Your task to perform on an android device: What's the weather? Image 0: 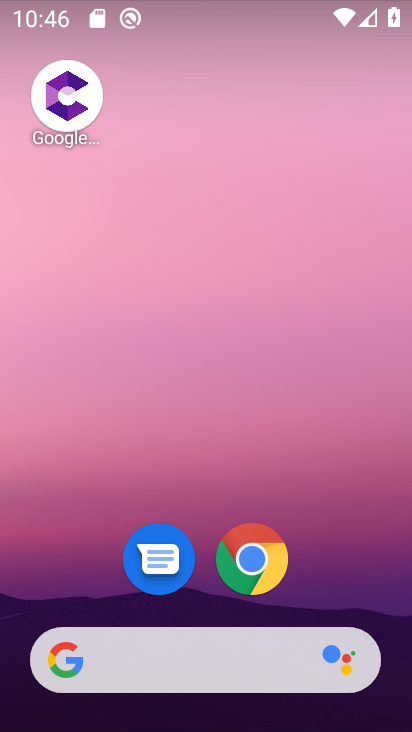
Step 0: drag from (204, 625) to (195, 166)
Your task to perform on an android device: What's the weather? Image 1: 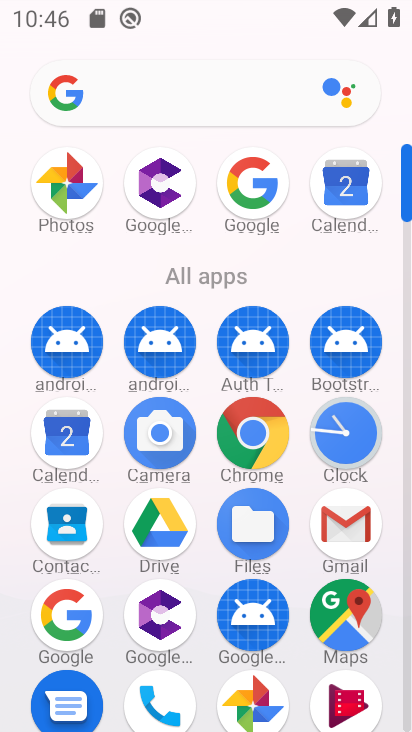
Step 1: click (254, 183)
Your task to perform on an android device: What's the weather? Image 2: 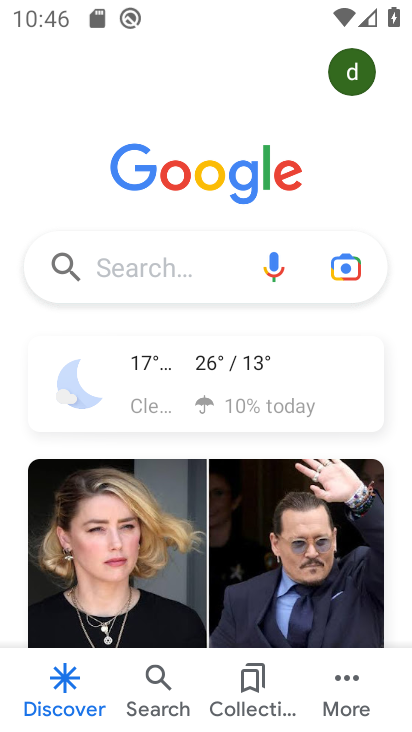
Step 2: click (138, 382)
Your task to perform on an android device: What's the weather? Image 3: 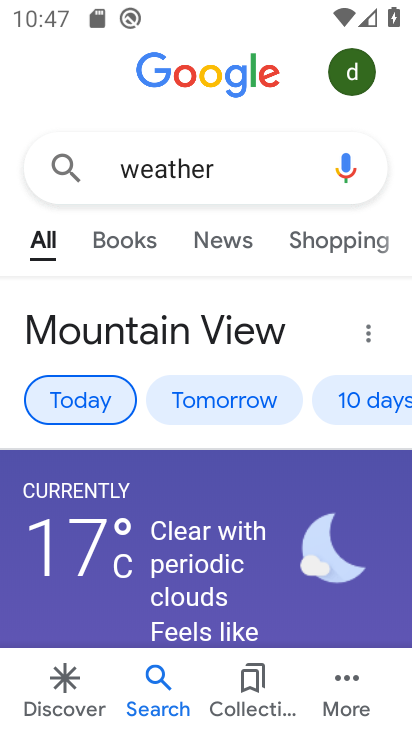
Step 3: task complete